Your task to perform on an android device: open app "Google Maps" (install if not already installed) Image 0: 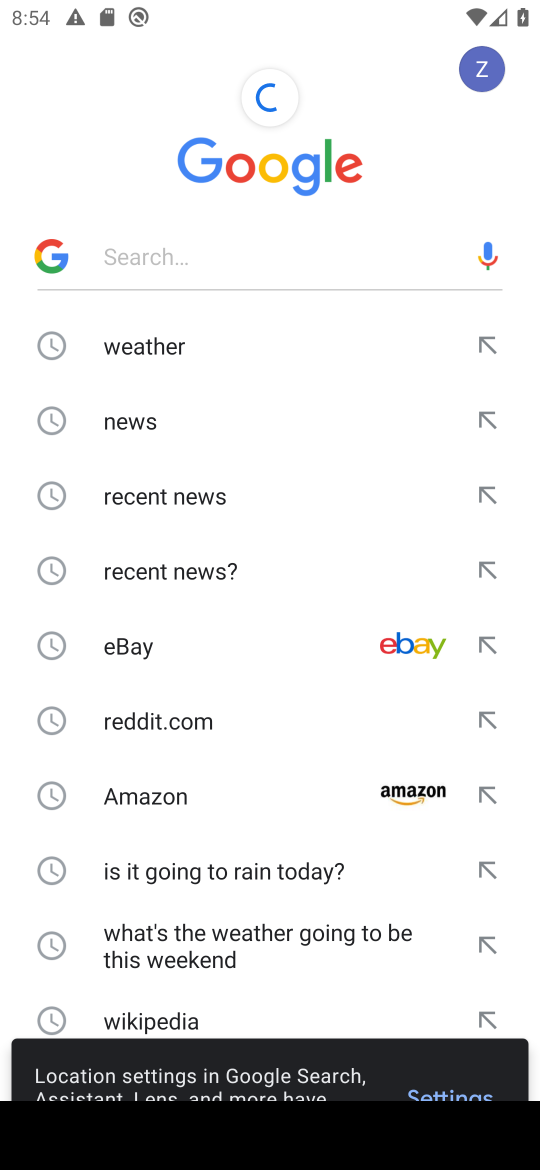
Step 0: press home button
Your task to perform on an android device: open app "Google Maps" (install if not already installed) Image 1: 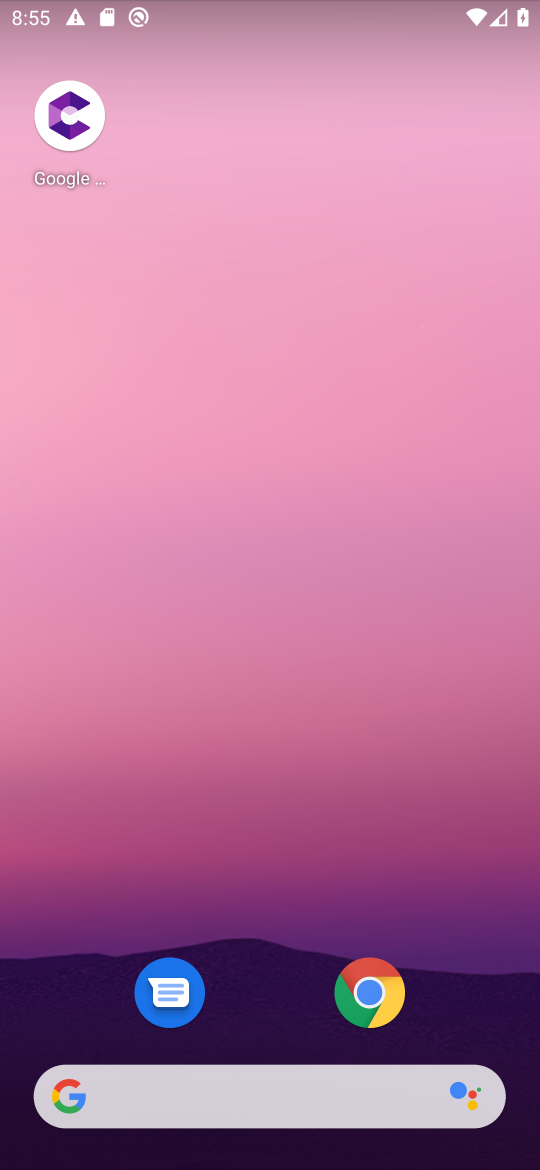
Step 1: drag from (183, 1107) to (146, 251)
Your task to perform on an android device: open app "Google Maps" (install if not already installed) Image 2: 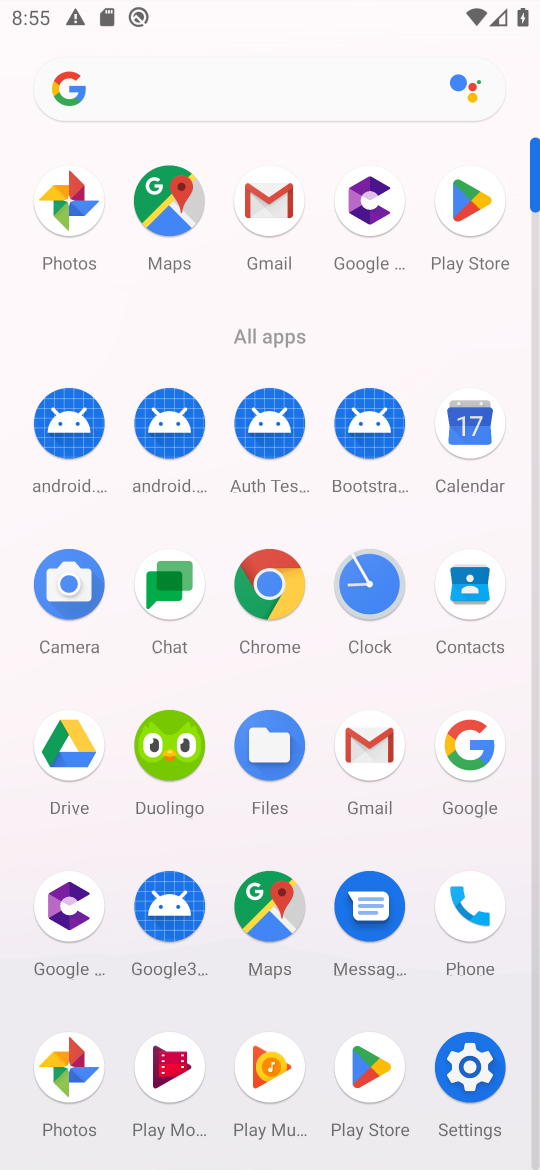
Step 2: click (474, 219)
Your task to perform on an android device: open app "Google Maps" (install if not already installed) Image 3: 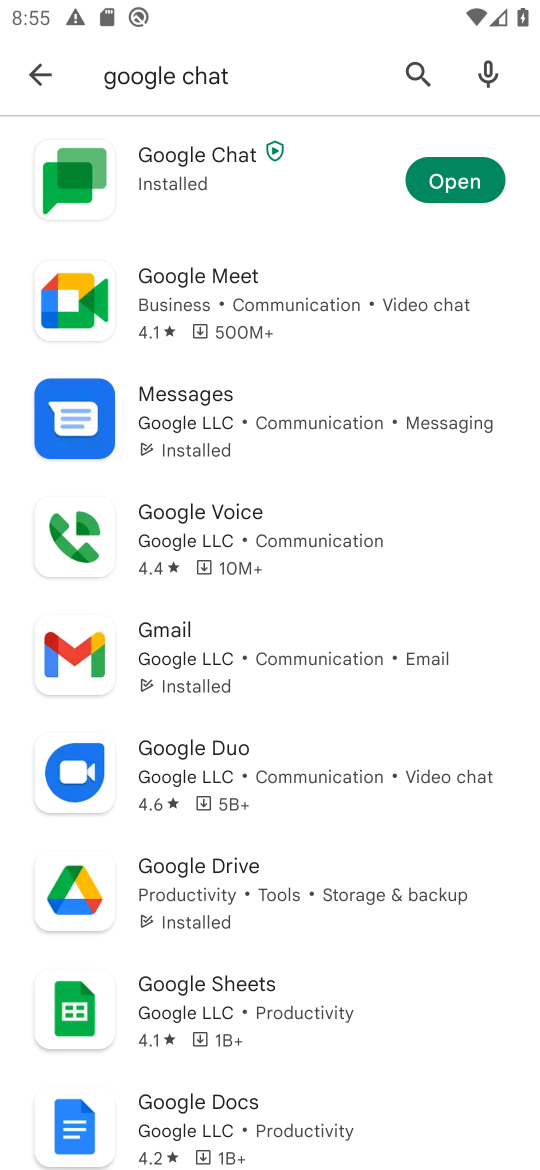
Step 3: click (418, 81)
Your task to perform on an android device: open app "Google Maps" (install if not already installed) Image 4: 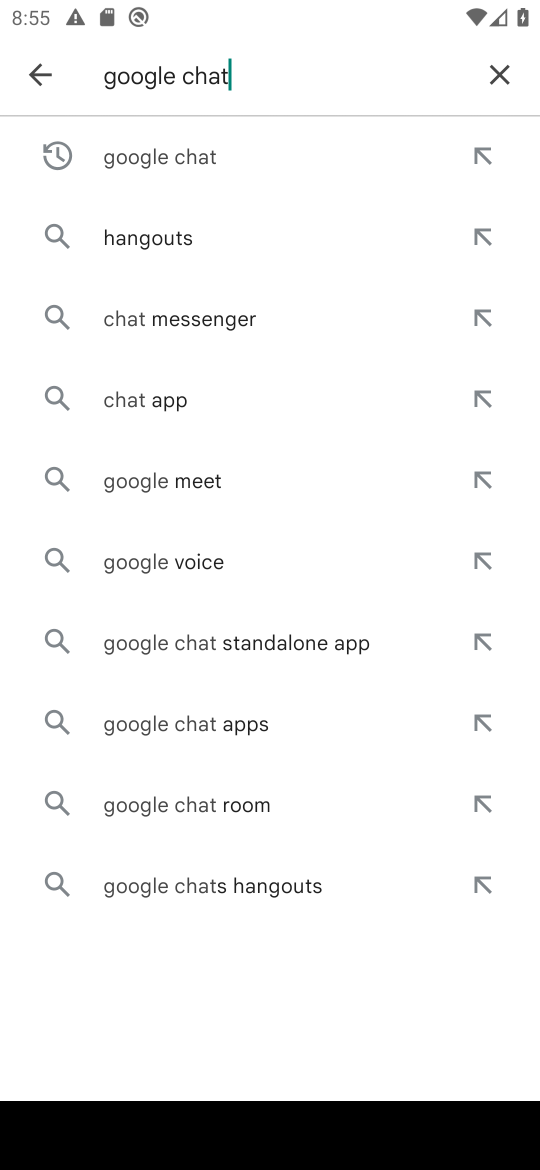
Step 4: click (508, 78)
Your task to perform on an android device: open app "Google Maps" (install if not already installed) Image 5: 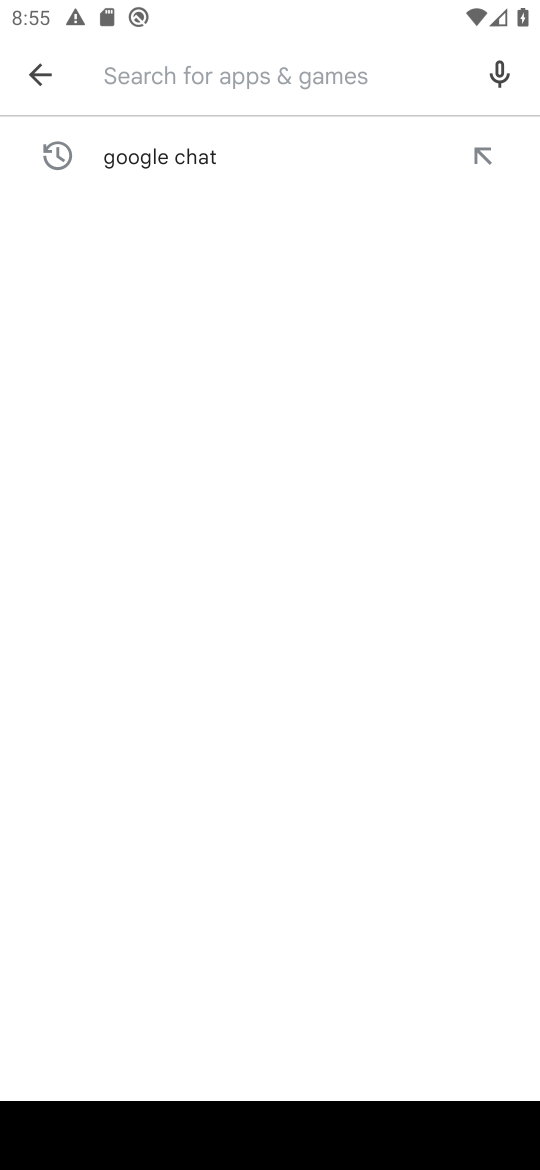
Step 5: type "Google Maps"
Your task to perform on an android device: open app "Google Maps" (install if not already installed) Image 6: 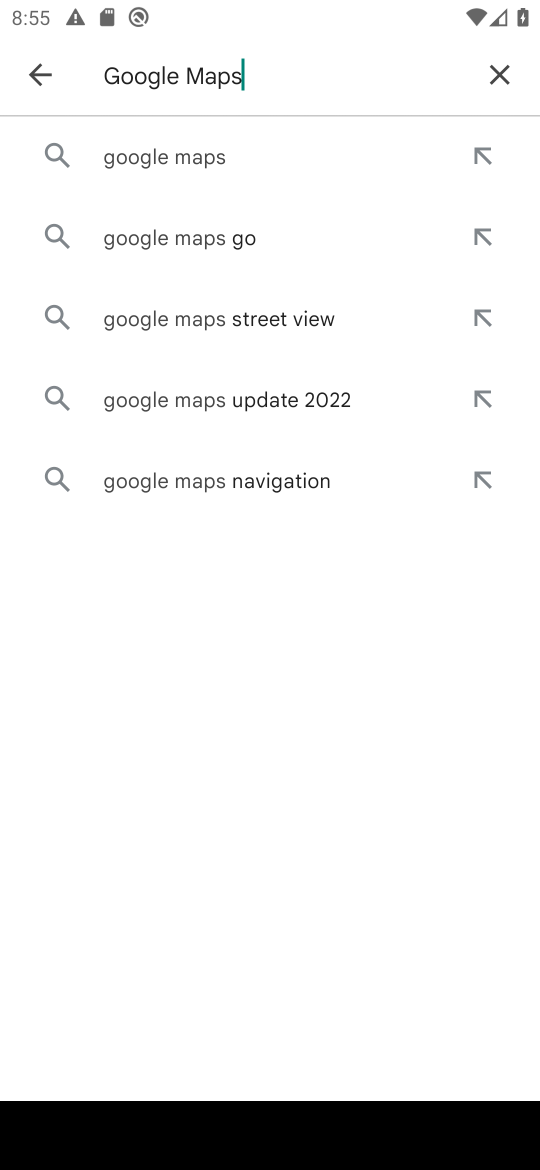
Step 6: click (201, 157)
Your task to perform on an android device: open app "Google Maps" (install if not already installed) Image 7: 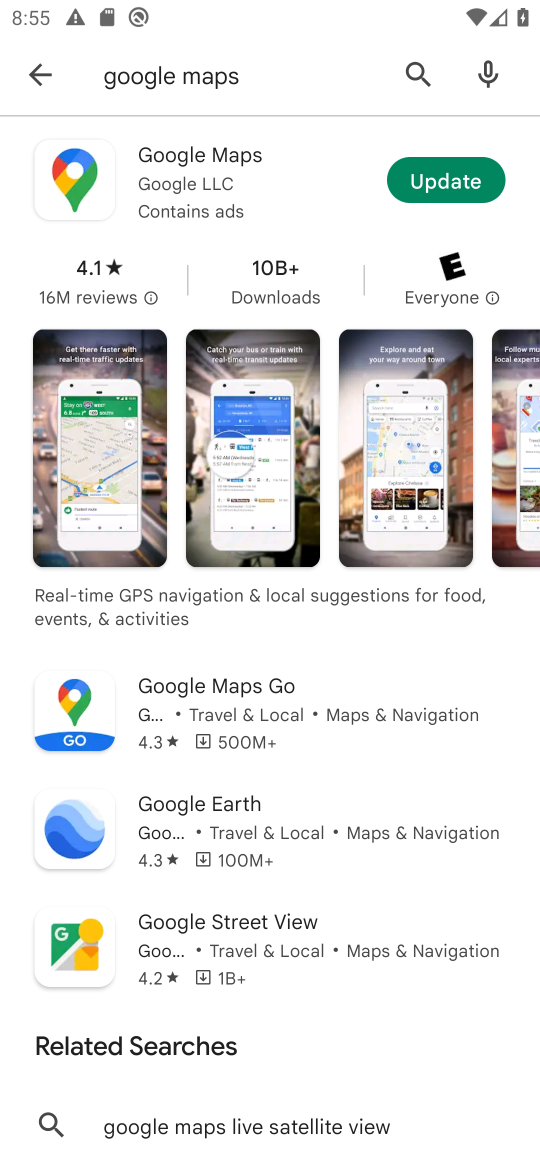
Step 7: click (225, 171)
Your task to perform on an android device: open app "Google Maps" (install if not already installed) Image 8: 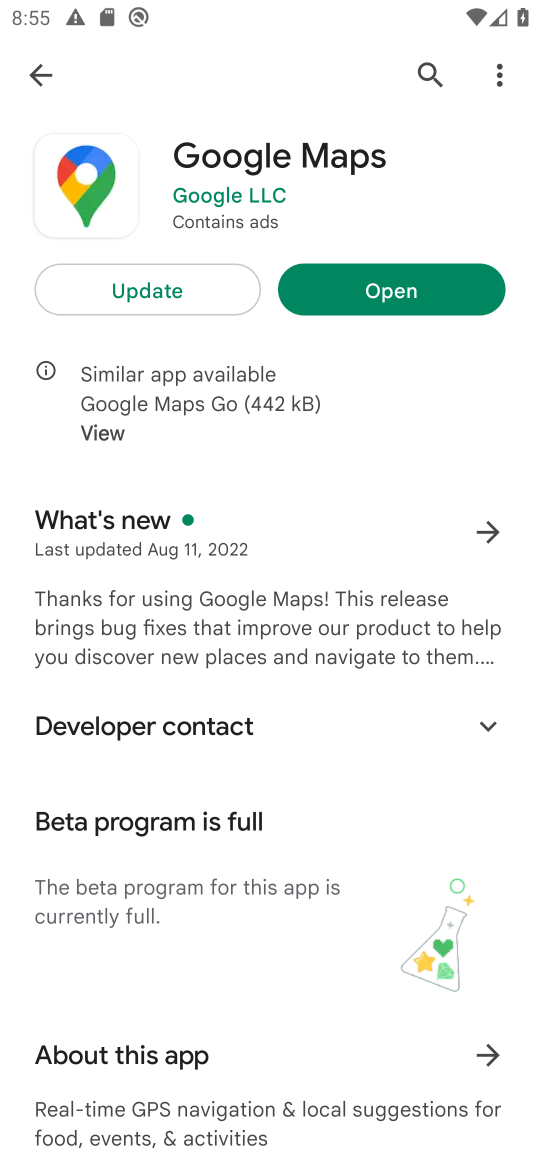
Step 8: click (378, 303)
Your task to perform on an android device: open app "Google Maps" (install if not already installed) Image 9: 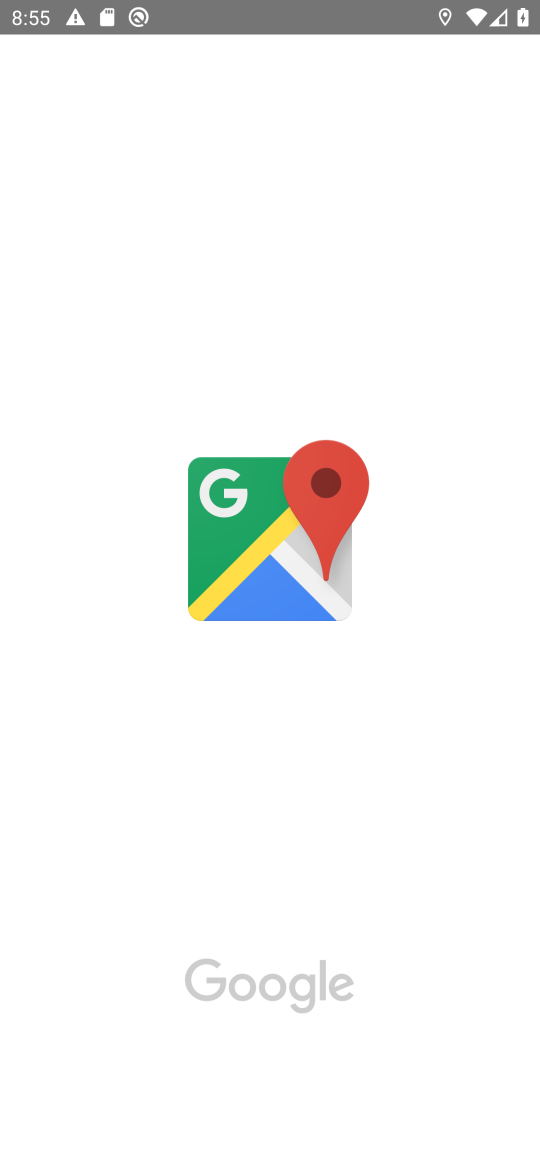
Step 9: task complete